Your task to perform on an android device: Open Google Chrome and click the shortcut for Amazon.com Image 0: 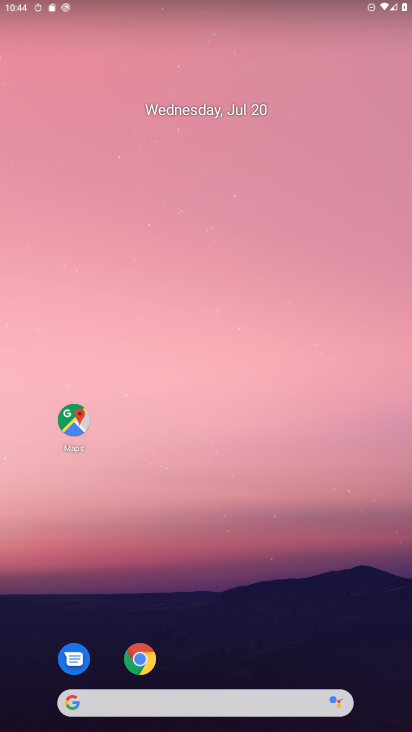
Step 0: drag from (299, 548) to (260, 59)
Your task to perform on an android device: Open Google Chrome and click the shortcut for Amazon.com Image 1: 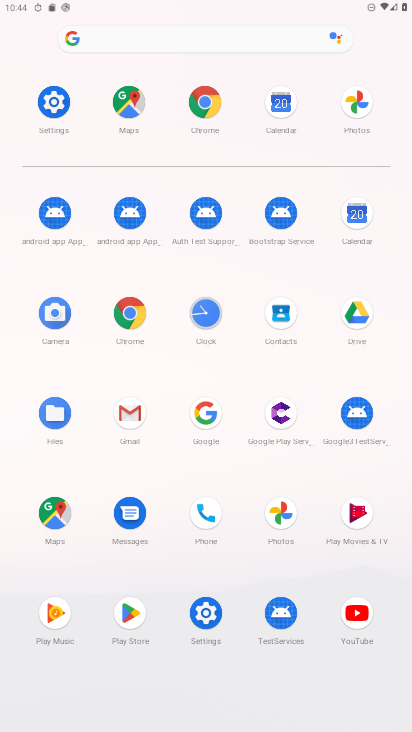
Step 1: click (126, 313)
Your task to perform on an android device: Open Google Chrome and click the shortcut for Amazon.com Image 2: 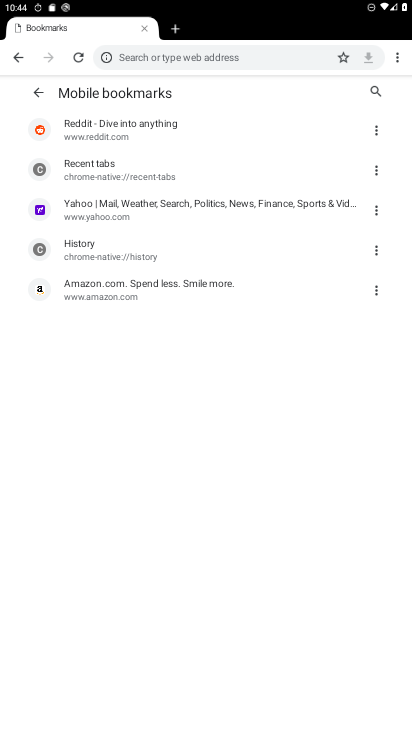
Step 2: click (173, 27)
Your task to perform on an android device: Open Google Chrome and click the shortcut for Amazon.com Image 3: 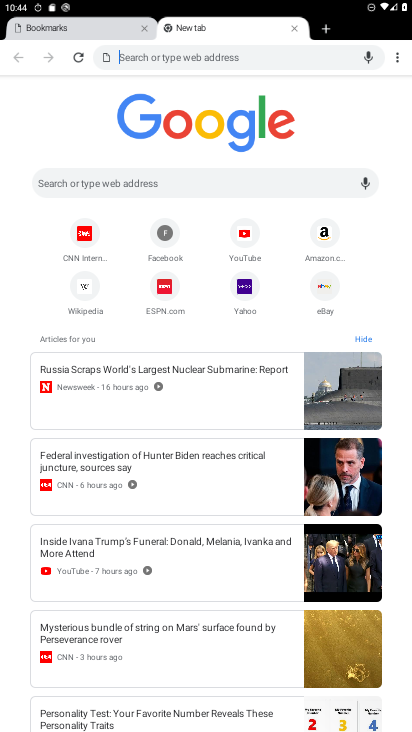
Step 3: click (328, 231)
Your task to perform on an android device: Open Google Chrome and click the shortcut for Amazon.com Image 4: 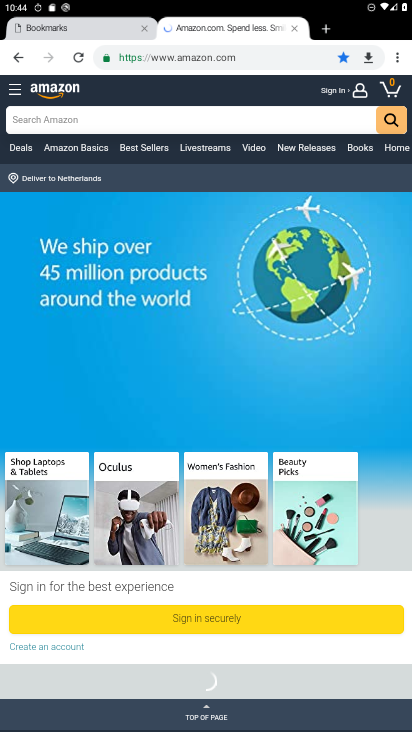
Step 4: task complete